Your task to perform on an android device: Go to eBay Image 0: 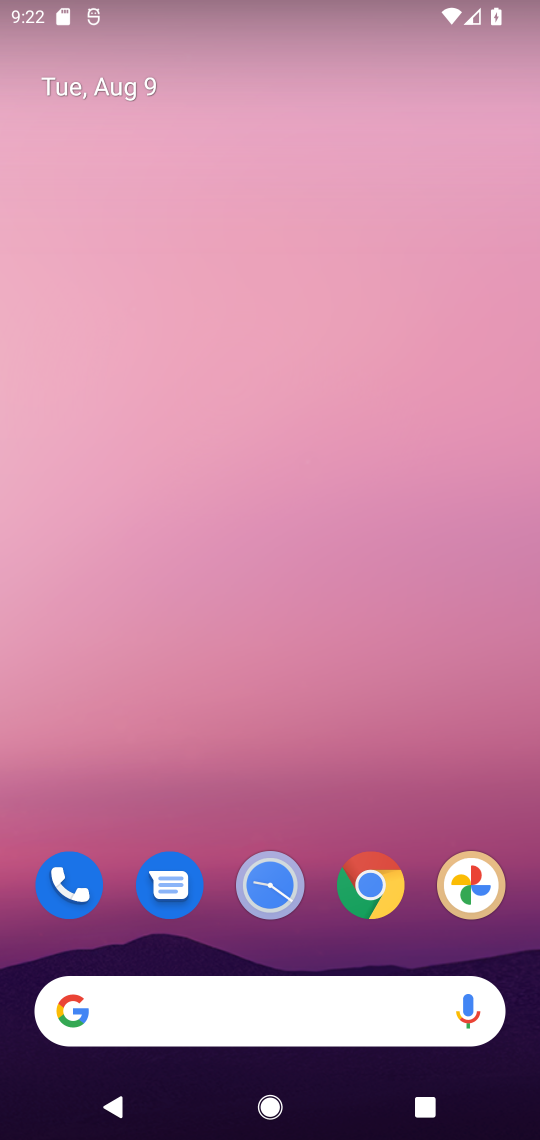
Step 0: click (372, 875)
Your task to perform on an android device: Go to eBay Image 1: 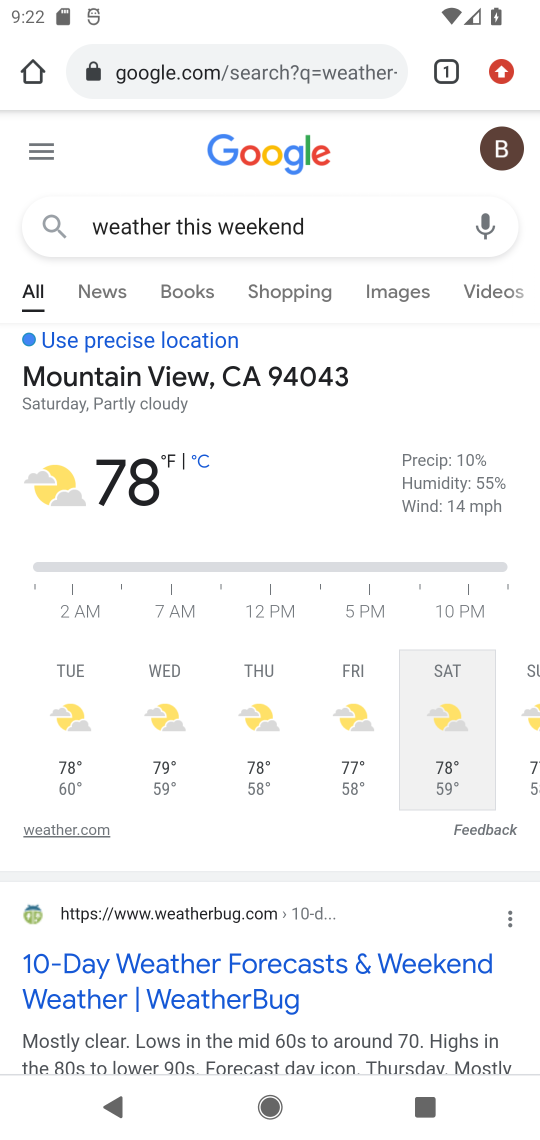
Step 1: click (240, 66)
Your task to perform on an android device: Go to eBay Image 2: 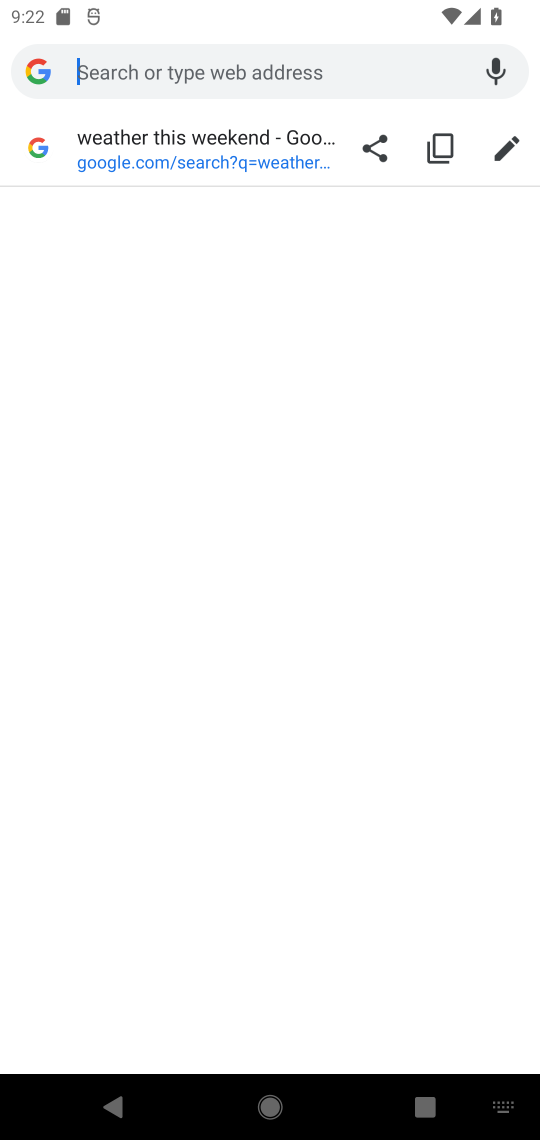
Step 2: type "ebay"
Your task to perform on an android device: Go to eBay Image 3: 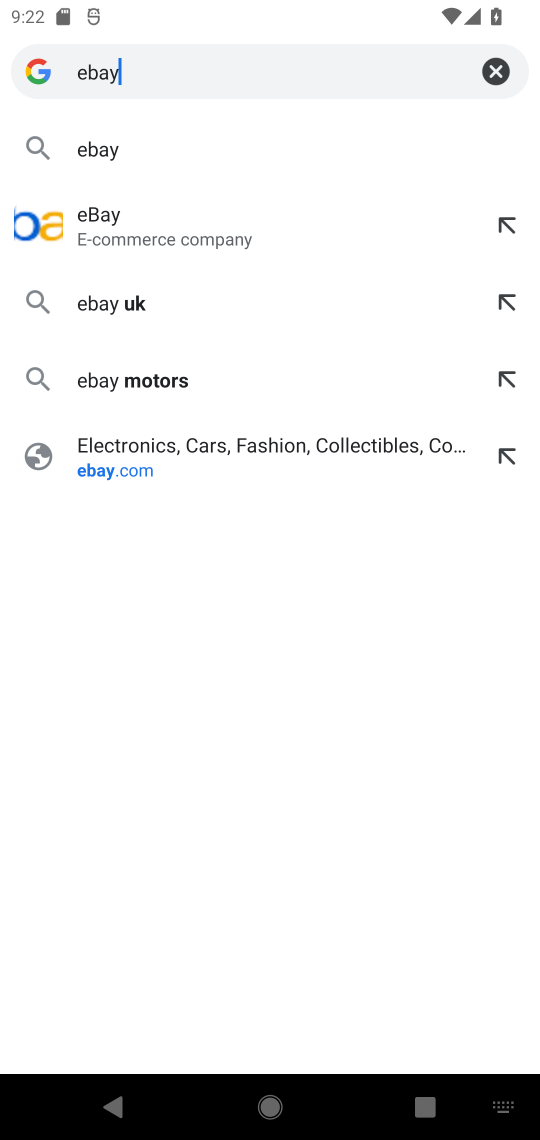
Step 3: click (140, 458)
Your task to perform on an android device: Go to eBay Image 4: 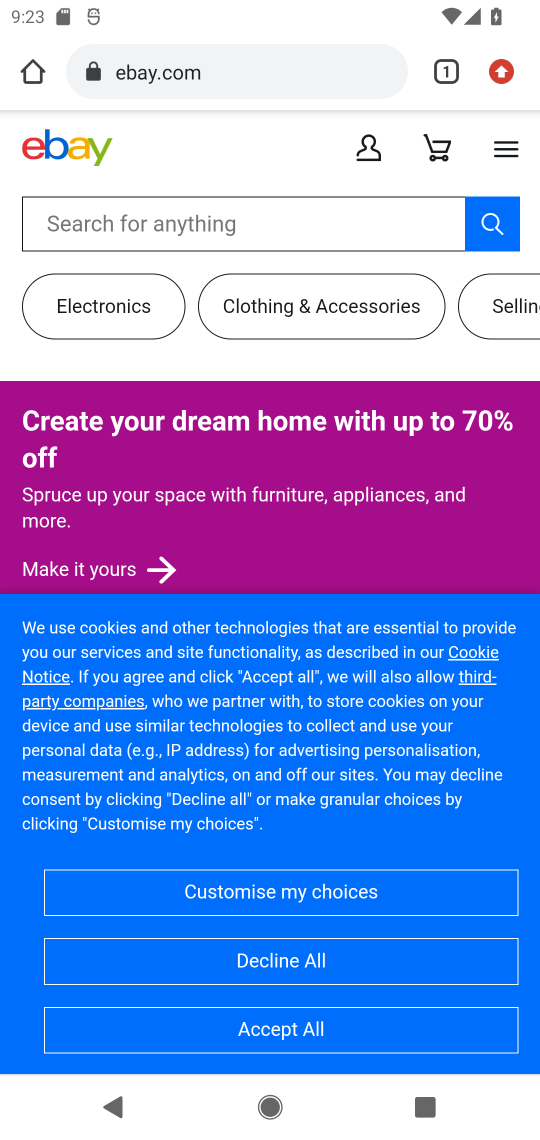
Step 4: task complete